Your task to perform on an android device: Open Google Chrome Image 0: 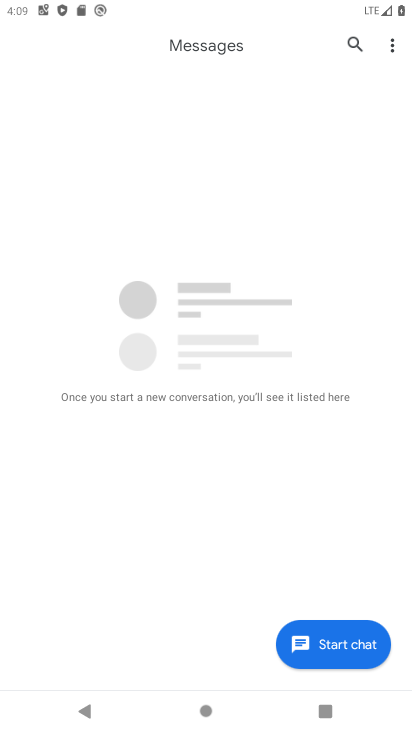
Step 0: click (355, 645)
Your task to perform on an android device: Open Google Chrome Image 1: 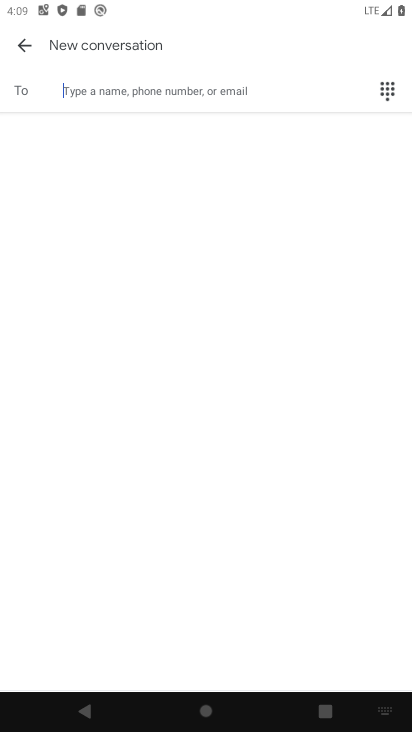
Step 1: press back button
Your task to perform on an android device: Open Google Chrome Image 2: 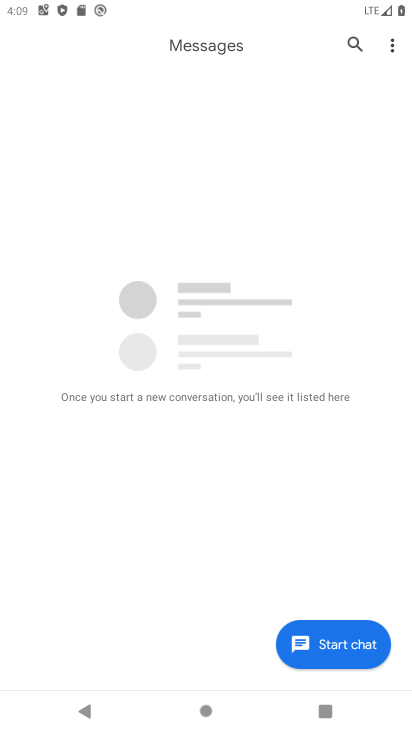
Step 2: press home button
Your task to perform on an android device: Open Google Chrome Image 3: 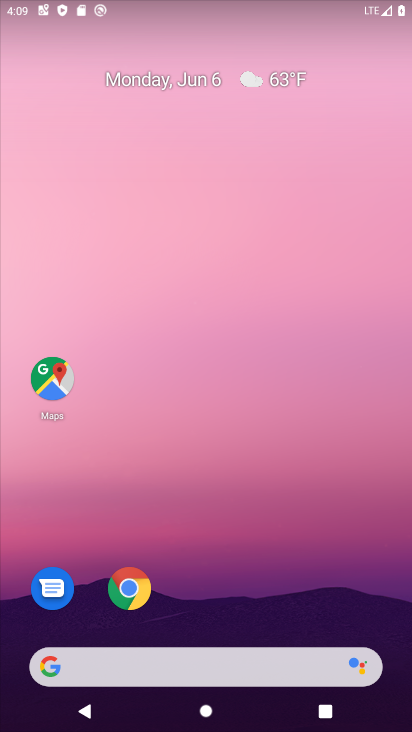
Step 3: click (153, 69)
Your task to perform on an android device: Open Google Chrome Image 4: 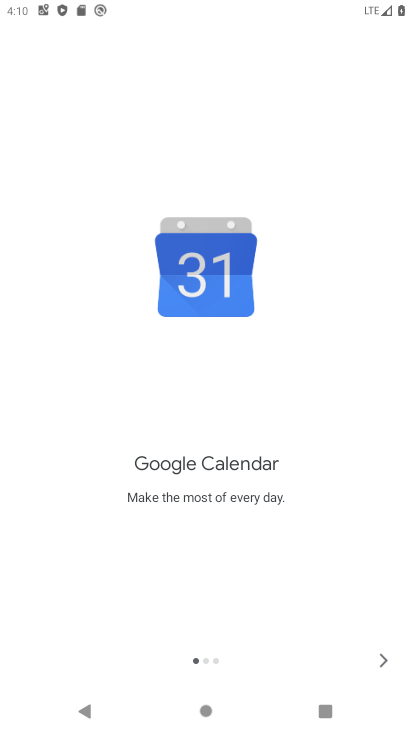
Step 4: click (390, 665)
Your task to perform on an android device: Open Google Chrome Image 5: 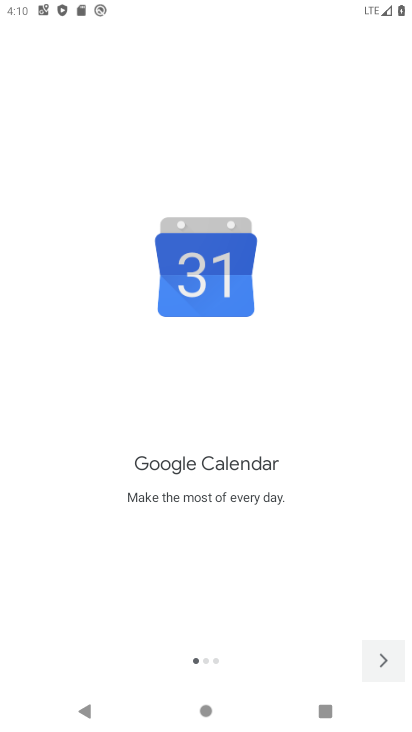
Step 5: click (391, 665)
Your task to perform on an android device: Open Google Chrome Image 6: 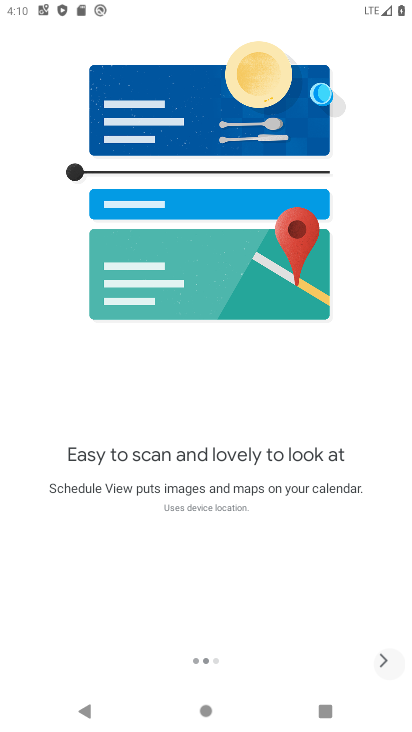
Step 6: click (391, 665)
Your task to perform on an android device: Open Google Chrome Image 7: 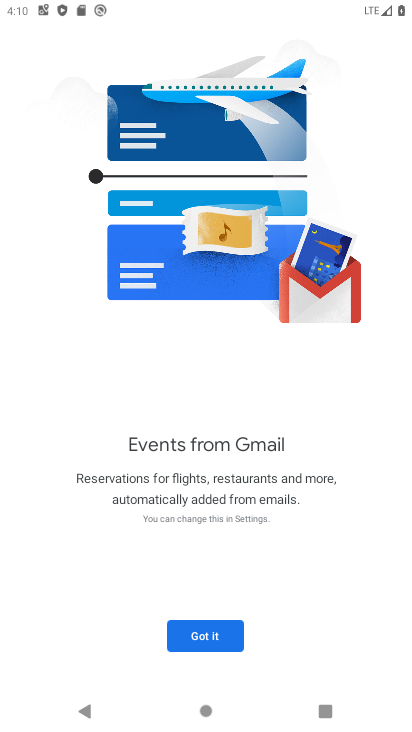
Step 7: click (215, 629)
Your task to perform on an android device: Open Google Chrome Image 8: 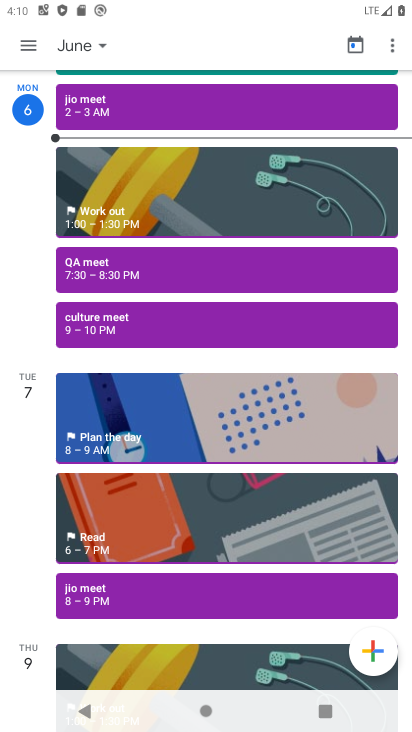
Step 8: press back button
Your task to perform on an android device: Open Google Chrome Image 9: 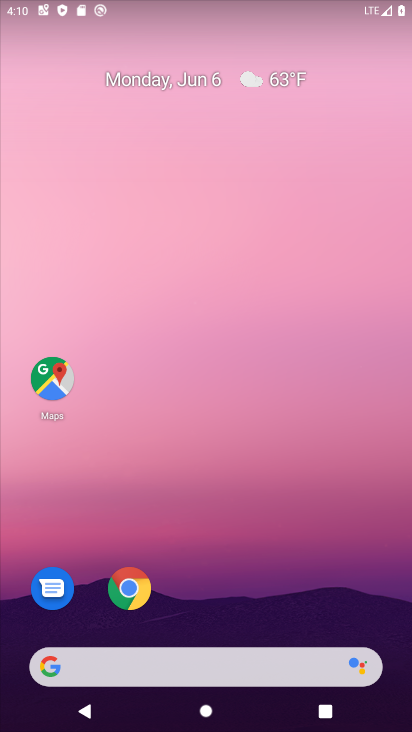
Step 9: drag from (267, 648) to (126, 82)
Your task to perform on an android device: Open Google Chrome Image 10: 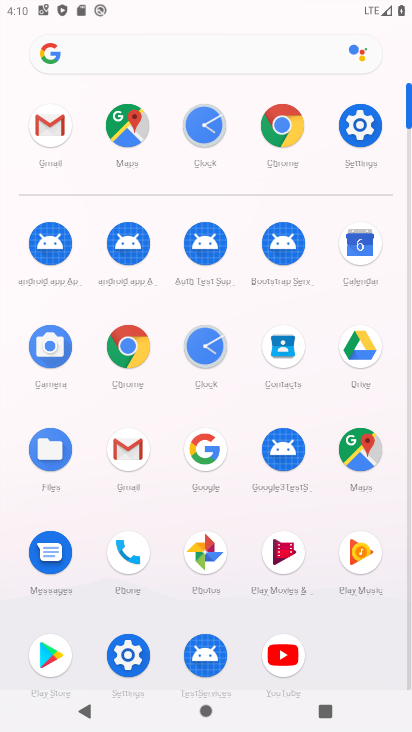
Step 10: click (286, 134)
Your task to perform on an android device: Open Google Chrome Image 11: 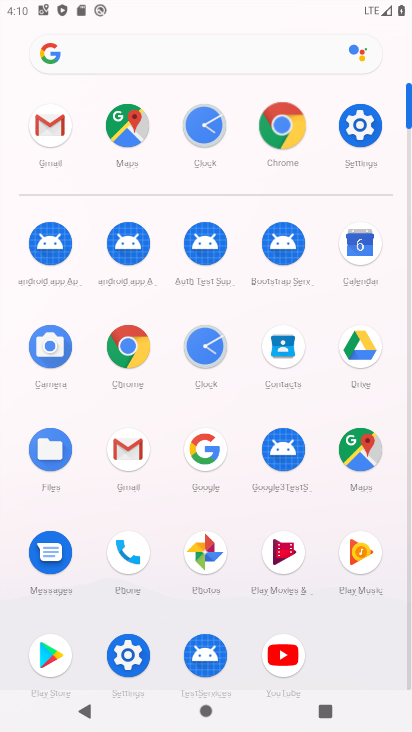
Step 11: click (286, 134)
Your task to perform on an android device: Open Google Chrome Image 12: 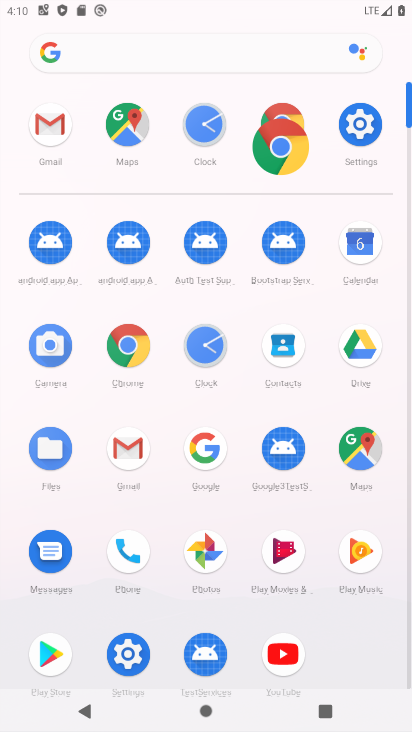
Step 12: click (286, 134)
Your task to perform on an android device: Open Google Chrome Image 13: 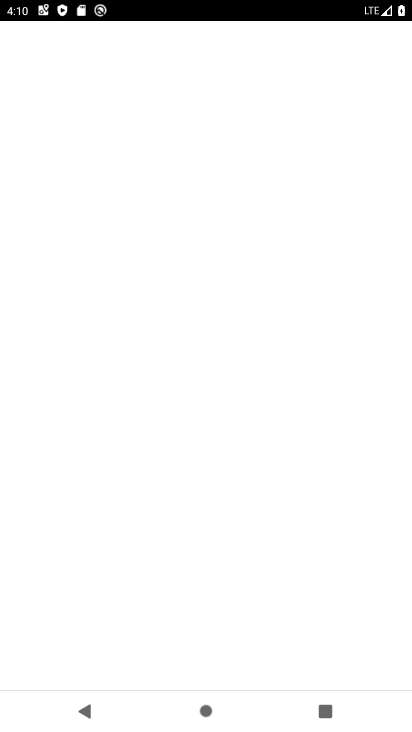
Step 13: click (291, 133)
Your task to perform on an android device: Open Google Chrome Image 14: 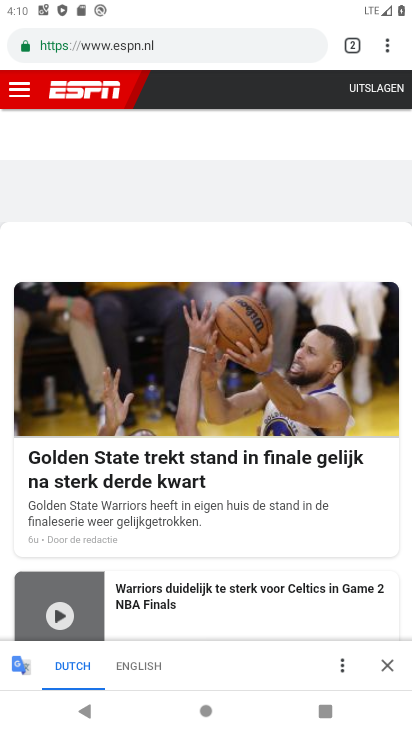
Step 14: task complete